Your task to perform on an android device: toggle airplane mode Image 0: 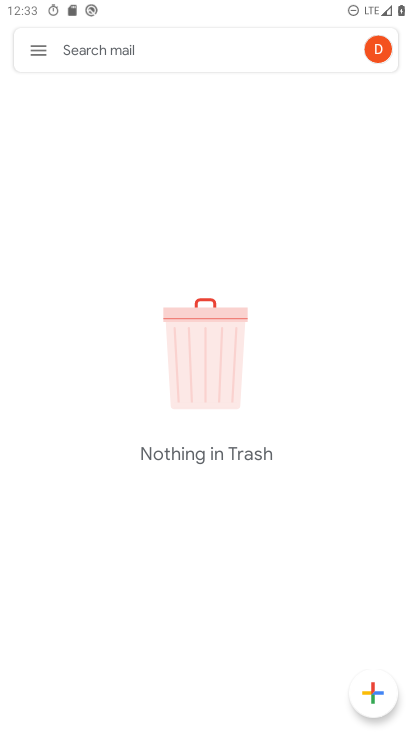
Step 0: press home button
Your task to perform on an android device: toggle airplane mode Image 1: 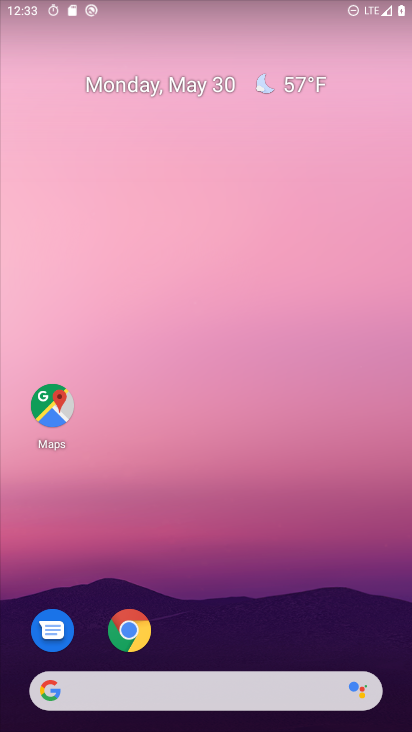
Step 1: drag from (254, 654) to (248, 260)
Your task to perform on an android device: toggle airplane mode Image 2: 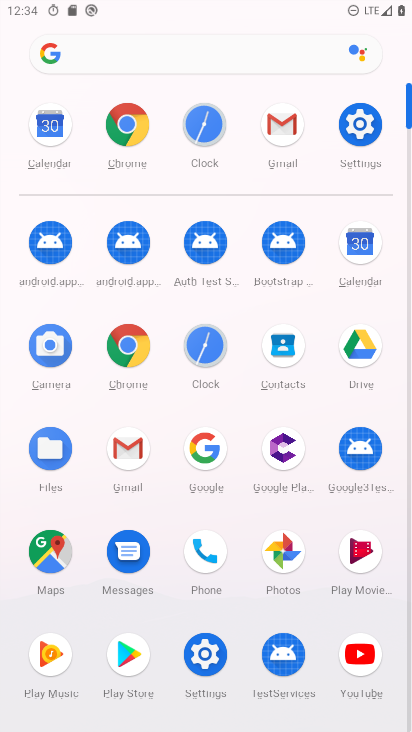
Step 2: click (360, 146)
Your task to perform on an android device: toggle airplane mode Image 3: 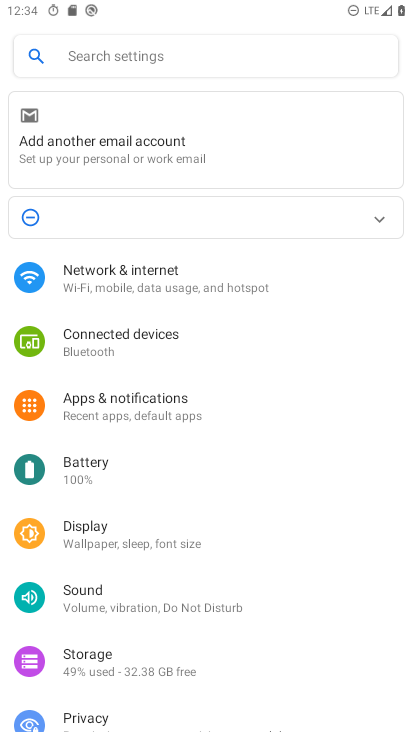
Step 3: click (151, 298)
Your task to perform on an android device: toggle airplane mode Image 4: 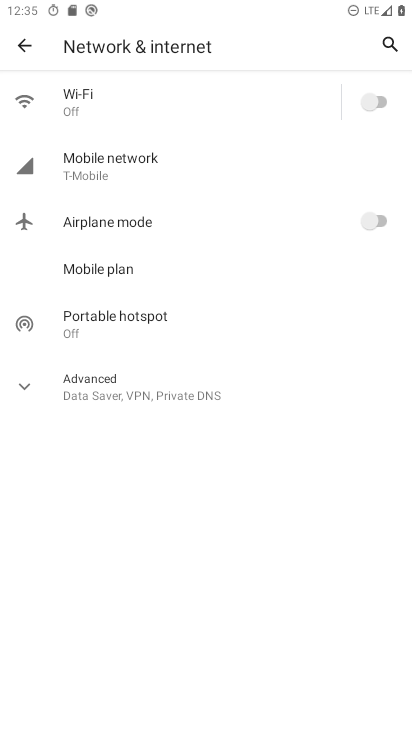
Step 4: click (159, 229)
Your task to perform on an android device: toggle airplane mode Image 5: 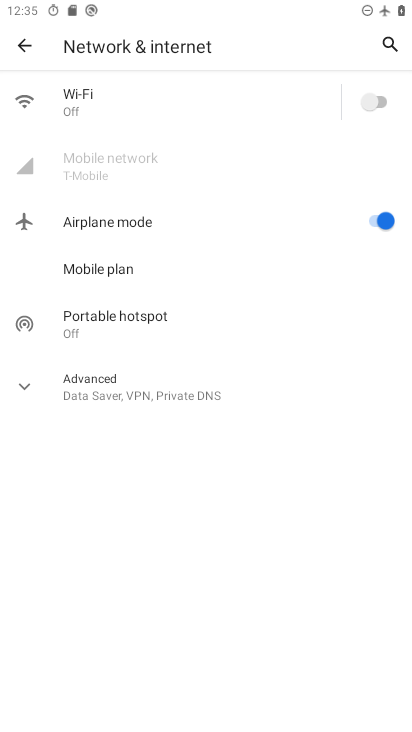
Step 5: click (159, 229)
Your task to perform on an android device: toggle airplane mode Image 6: 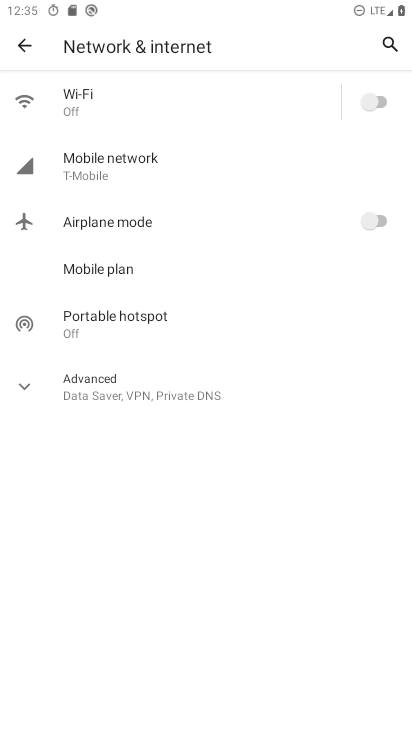
Step 6: task complete